Your task to perform on an android device: move an email to a new category in the gmail app Image 0: 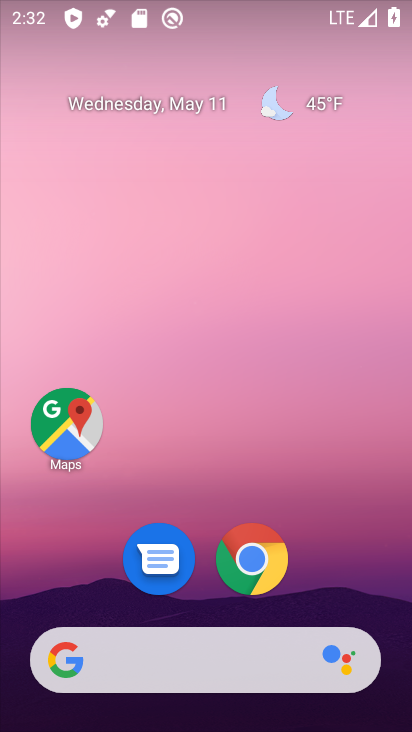
Step 0: drag from (341, 551) to (267, 76)
Your task to perform on an android device: move an email to a new category in the gmail app Image 1: 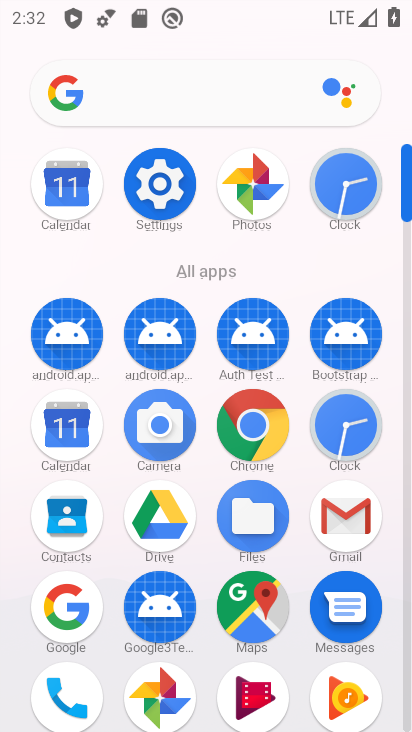
Step 1: click (326, 506)
Your task to perform on an android device: move an email to a new category in the gmail app Image 2: 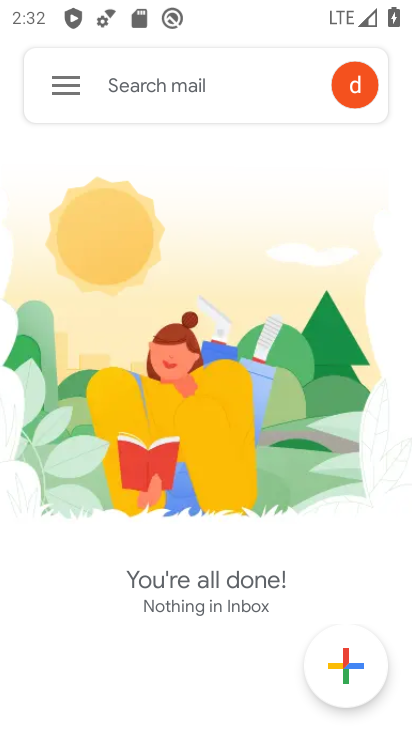
Step 2: task complete